Your task to perform on an android device: Search for pizza restaurants on Maps Image 0: 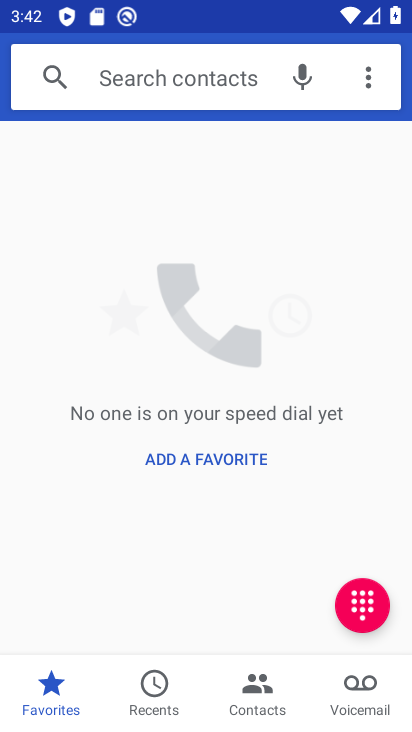
Step 0: press home button
Your task to perform on an android device: Search for pizza restaurants on Maps Image 1: 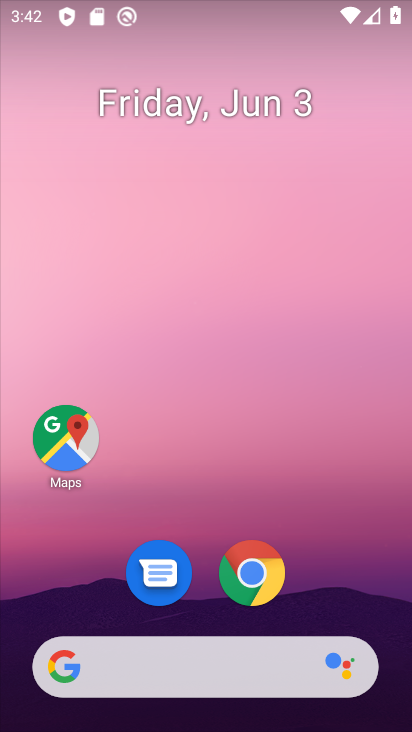
Step 1: click (53, 436)
Your task to perform on an android device: Search for pizza restaurants on Maps Image 2: 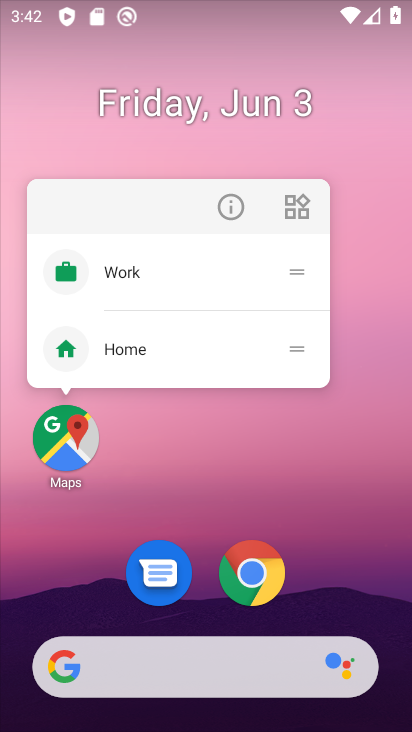
Step 2: click (53, 436)
Your task to perform on an android device: Search for pizza restaurants on Maps Image 3: 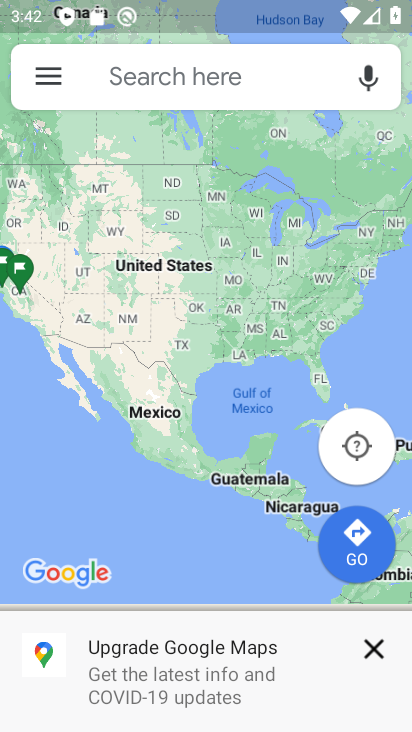
Step 3: click (53, 436)
Your task to perform on an android device: Search for pizza restaurants on Maps Image 4: 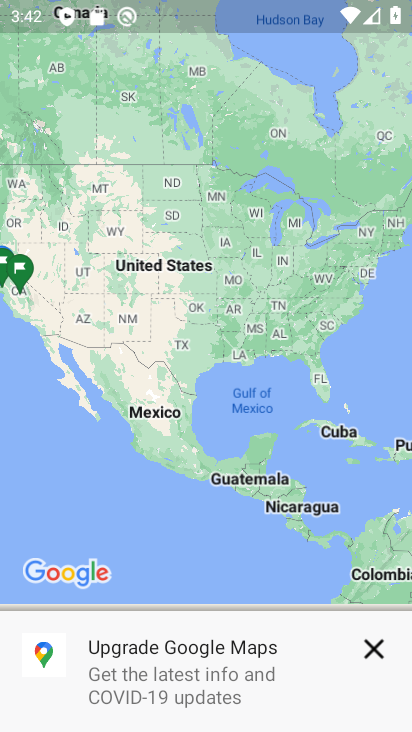
Step 4: press back button
Your task to perform on an android device: Search for pizza restaurants on Maps Image 5: 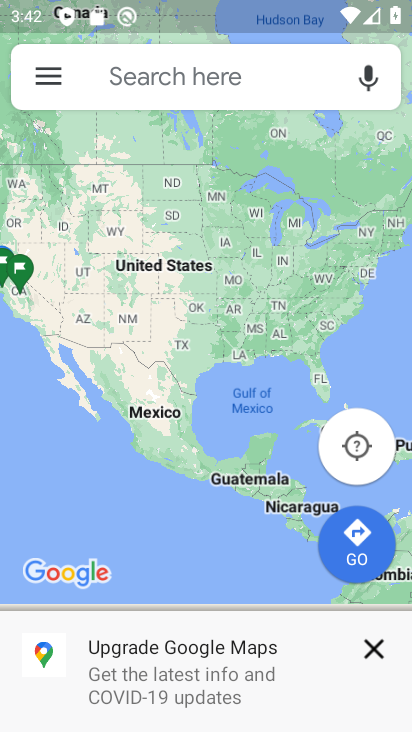
Step 5: click (126, 75)
Your task to perform on an android device: Search for pizza restaurants on Maps Image 6: 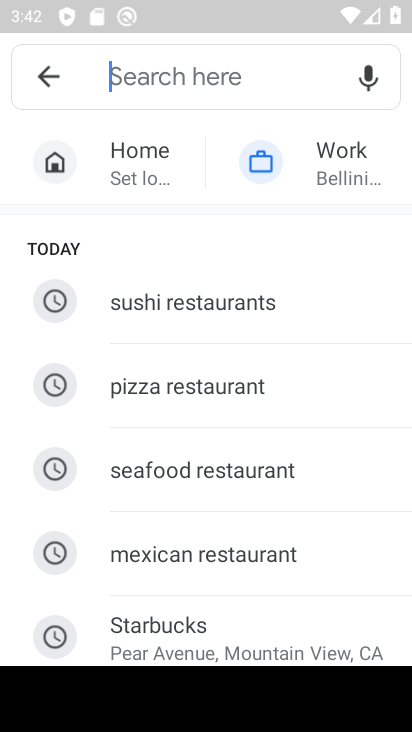
Step 6: type " pizza restaurants"
Your task to perform on an android device: Search for pizza restaurants on Maps Image 7: 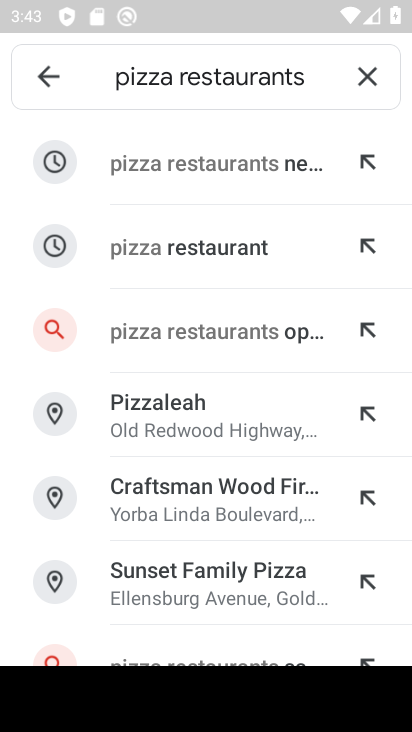
Step 7: click (179, 251)
Your task to perform on an android device: Search for pizza restaurants on Maps Image 8: 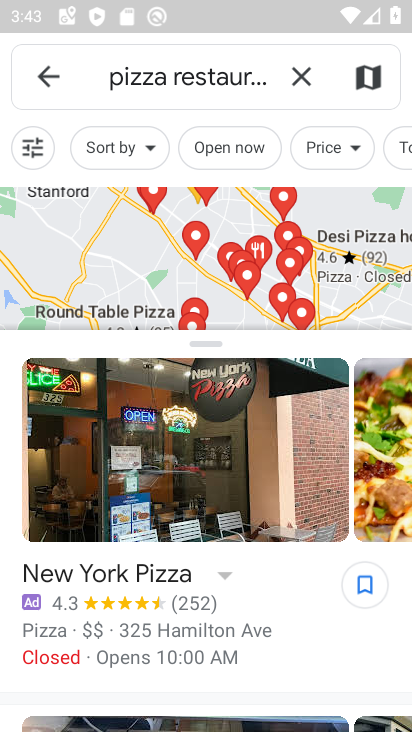
Step 8: task complete